Your task to perform on an android device: Go to sound settings Image 0: 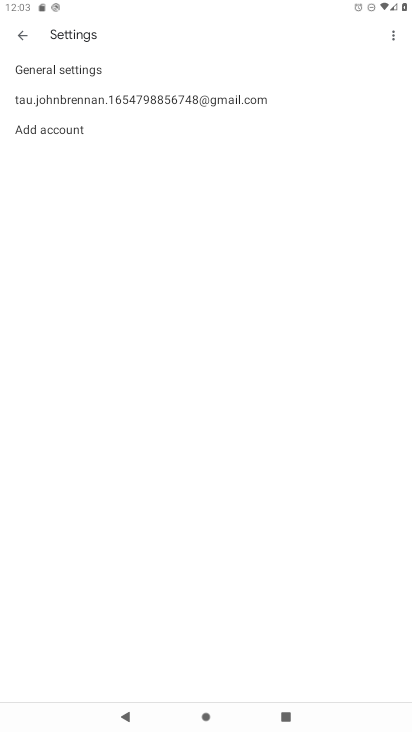
Step 0: press home button
Your task to perform on an android device: Go to sound settings Image 1: 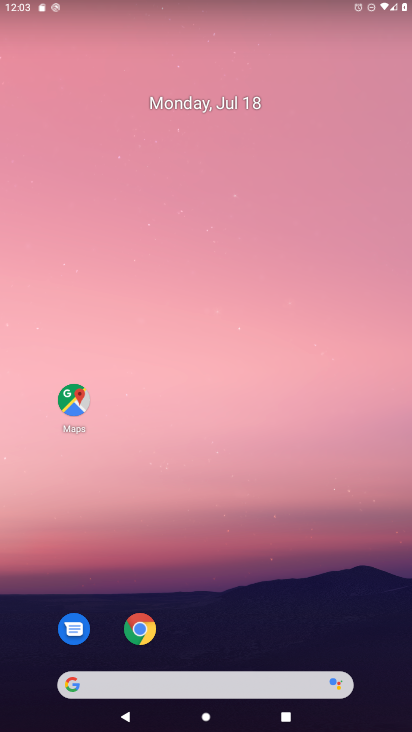
Step 1: drag from (201, 687) to (234, 265)
Your task to perform on an android device: Go to sound settings Image 2: 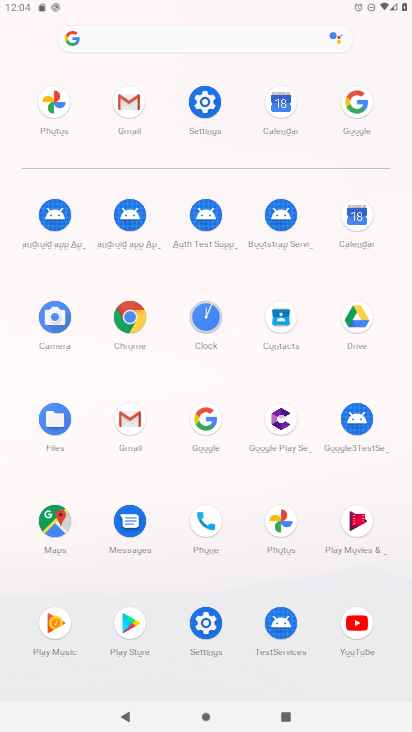
Step 2: click (206, 99)
Your task to perform on an android device: Go to sound settings Image 3: 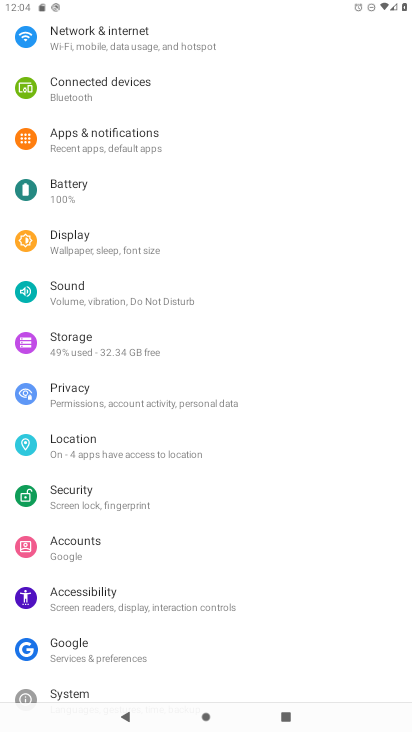
Step 3: click (88, 291)
Your task to perform on an android device: Go to sound settings Image 4: 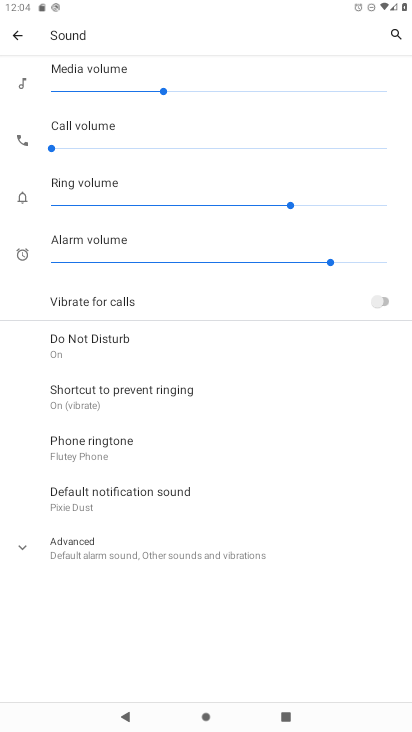
Step 4: task complete